Your task to perform on an android device: turn on location history Image 0: 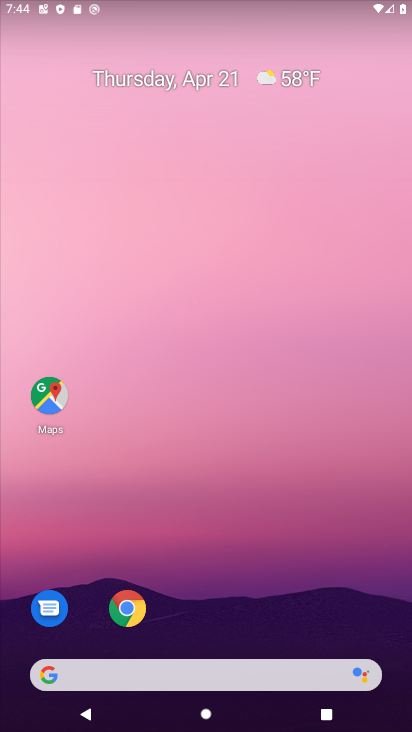
Step 0: drag from (323, 534) to (291, 139)
Your task to perform on an android device: turn on location history Image 1: 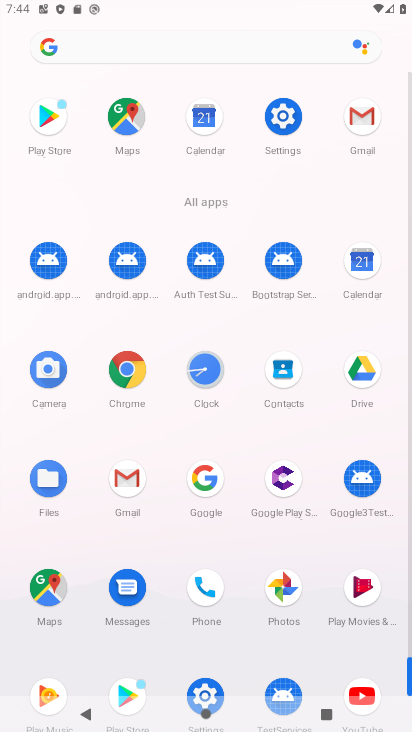
Step 1: click (280, 110)
Your task to perform on an android device: turn on location history Image 2: 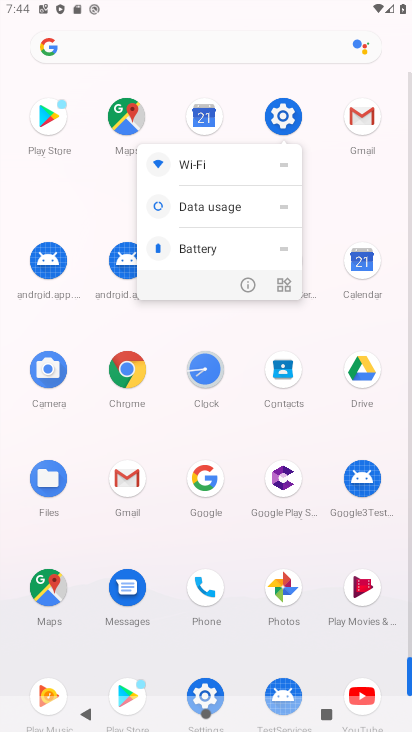
Step 2: click (280, 111)
Your task to perform on an android device: turn on location history Image 3: 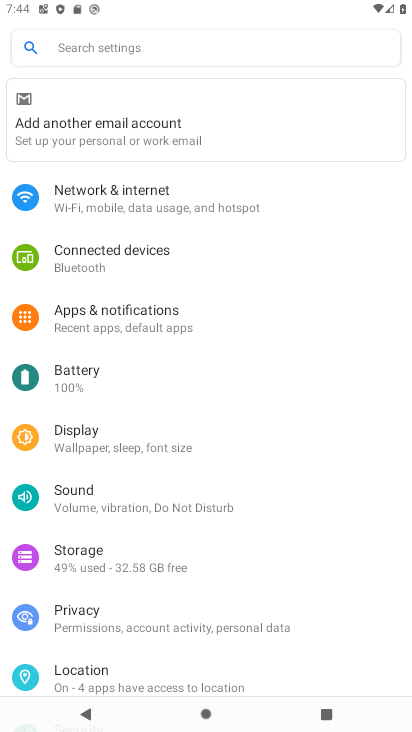
Step 3: click (211, 679)
Your task to perform on an android device: turn on location history Image 4: 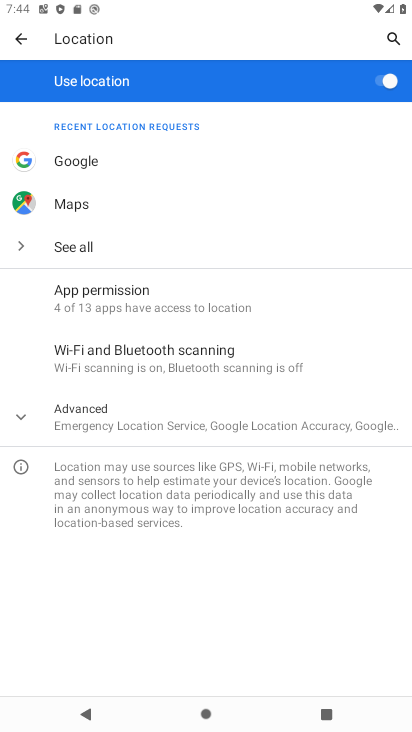
Step 4: click (15, 407)
Your task to perform on an android device: turn on location history Image 5: 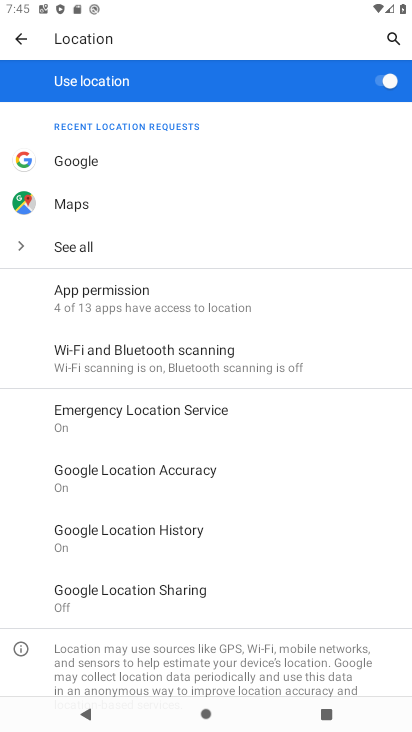
Step 5: task complete